Your task to perform on an android device: Do I have any events today? Image 0: 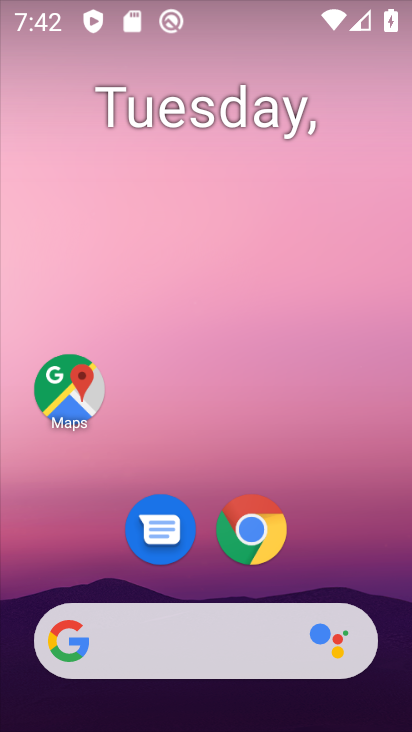
Step 0: drag from (239, 644) to (301, 79)
Your task to perform on an android device: Do I have any events today? Image 1: 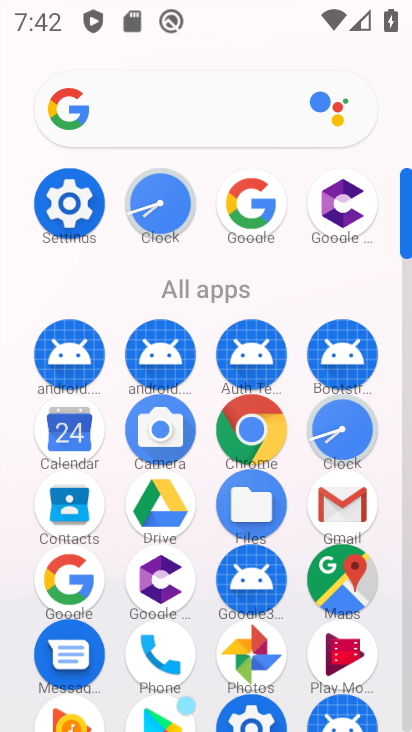
Step 1: click (69, 442)
Your task to perform on an android device: Do I have any events today? Image 2: 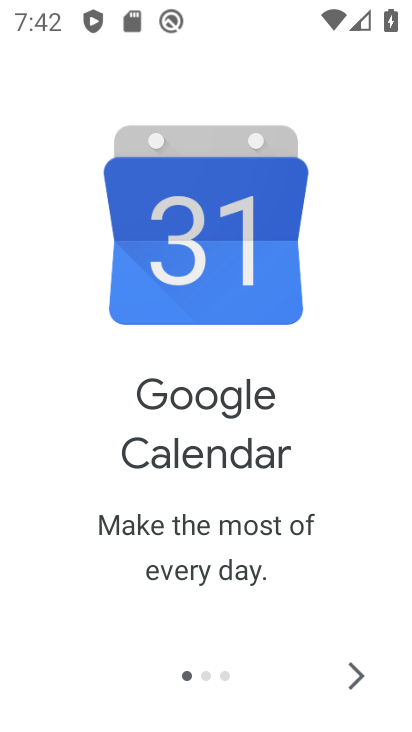
Step 2: click (363, 680)
Your task to perform on an android device: Do I have any events today? Image 3: 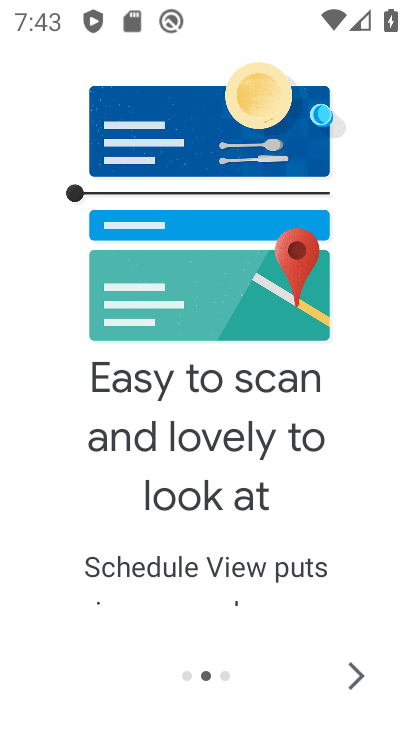
Step 3: click (362, 682)
Your task to perform on an android device: Do I have any events today? Image 4: 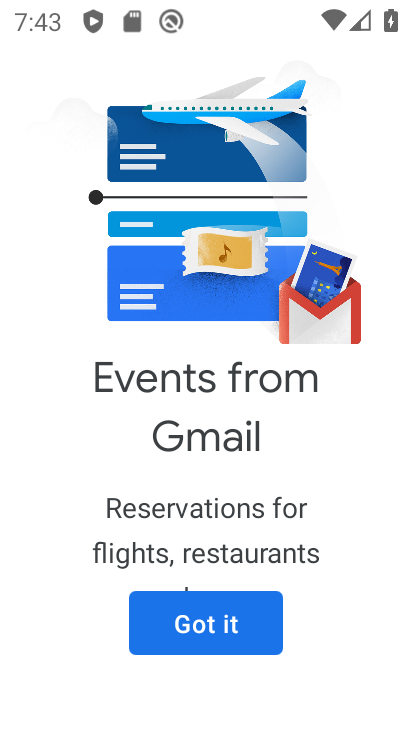
Step 4: click (256, 651)
Your task to perform on an android device: Do I have any events today? Image 5: 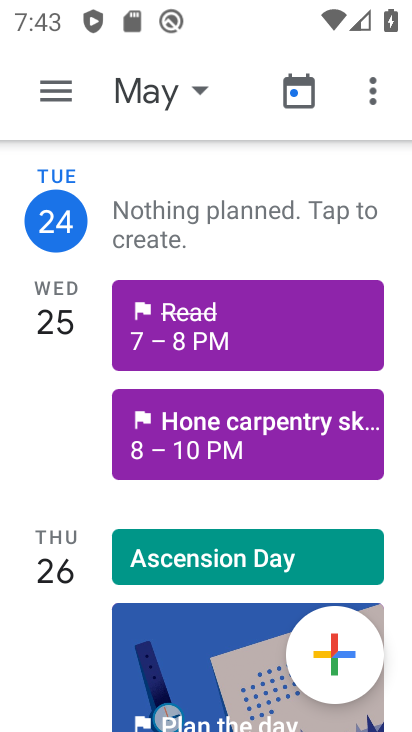
Step 5: task complete